Your task to perform on an android device: Is it going to rain today? Image 0: 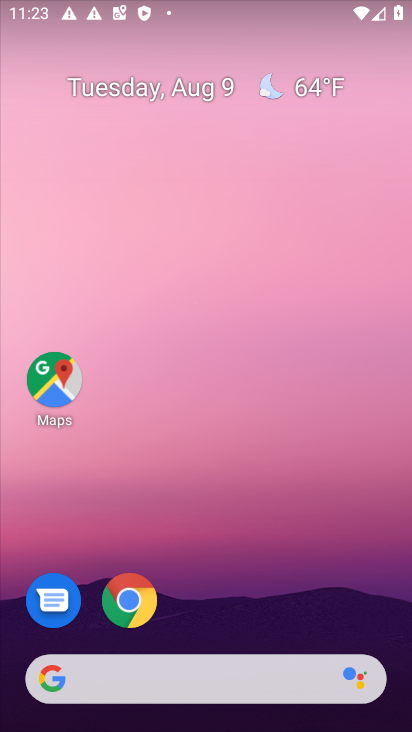
Step 0: click (107, 684)
Your task to perform on an android device: Is it going to rain today? Image 1: 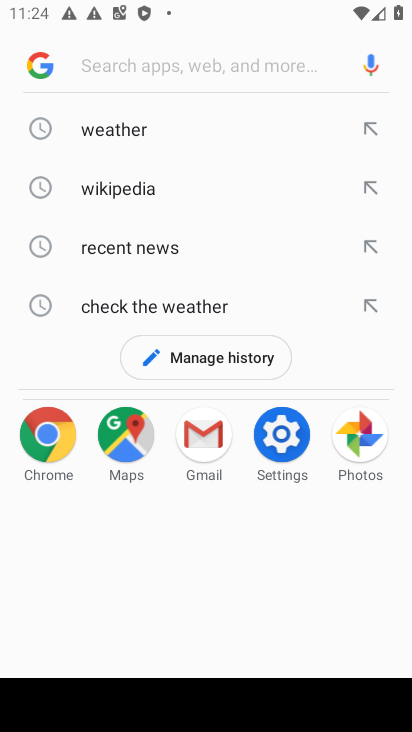
Step 1: type "Is it going to rain today?"
Your task to perform on an android device: Is it going to rain today? Image 2: 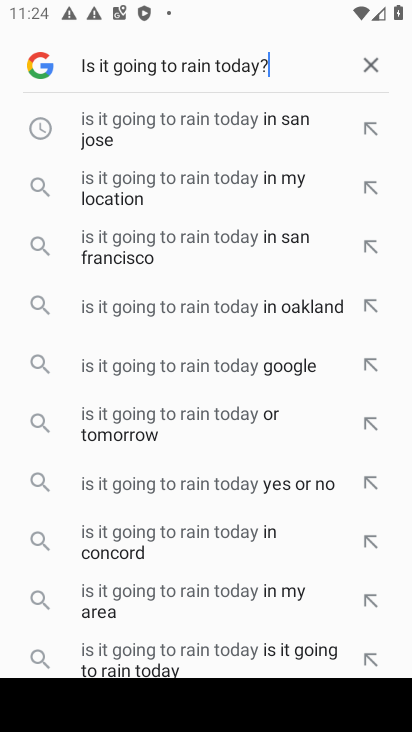
Step 2: type ""
Your task to perform on an android device: Is it going to rain today? Image 3: 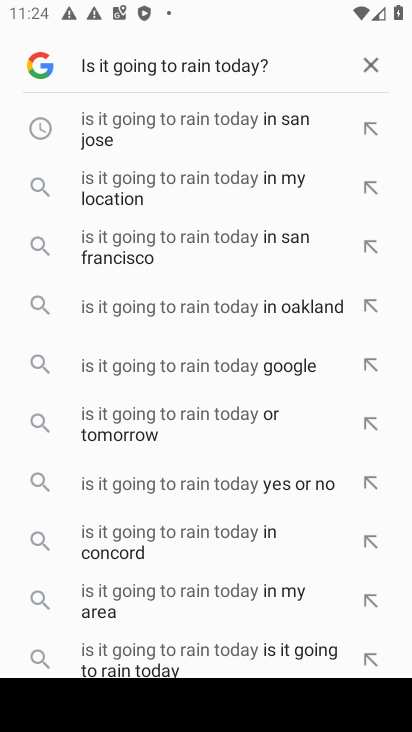
Step 3: type ""
Your task to perform on an android device: Is it going to rain today? Image 4: 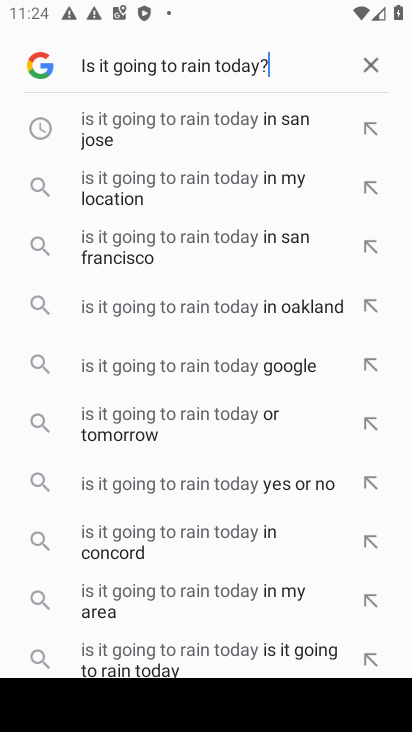
Step 4: task complete